Your task to perform on an android device: turn off airplane mode Image 0: 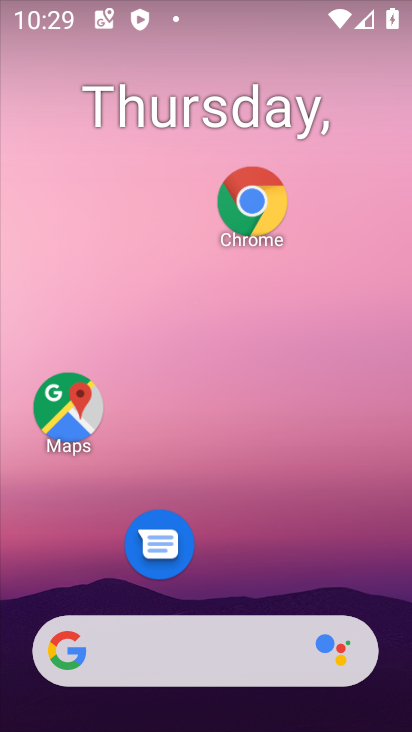
Step 0: press home button
Your task to perform on an android device: turn off airplane mode Image 1: 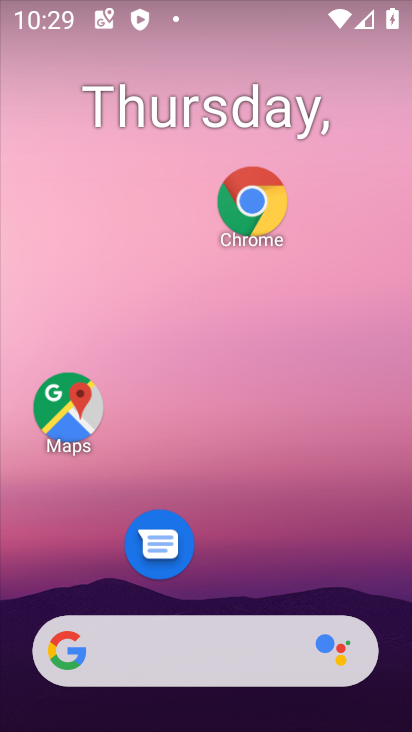
Step 1: task complete